Your task to perform on an android device: Open location settings Image 0: 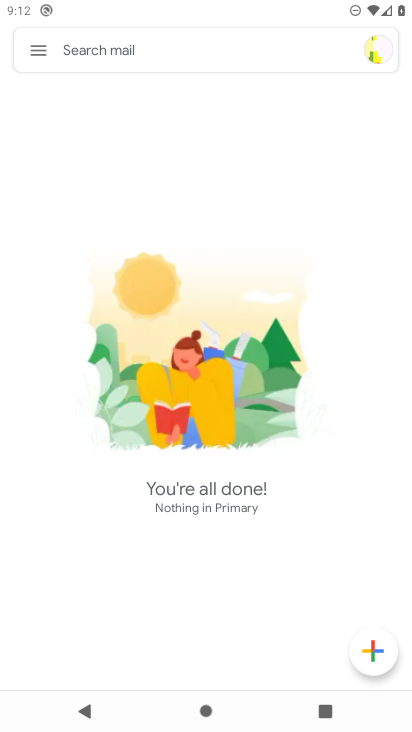
Step 0: press home button
Your task to perform on an android device: Open location settings Image 1: 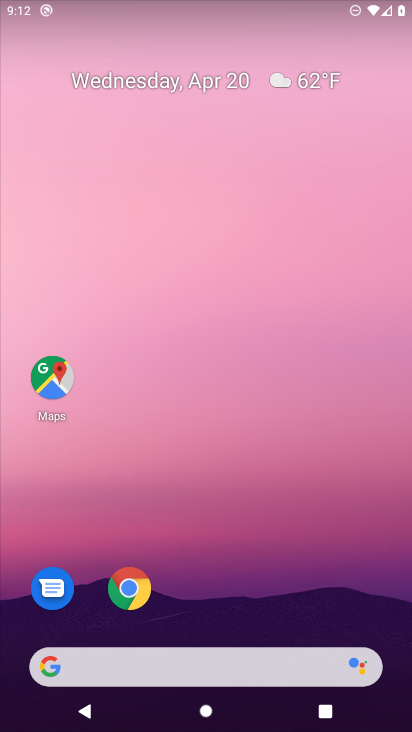
Step 1: drag from (218, 630) to (279, 0)
Your task to perform on an android device: Open location settings Image 2: 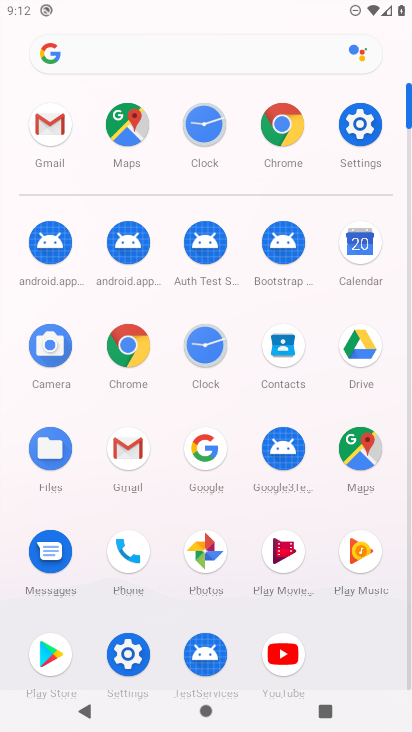
Step 2: click (359, 117)
Your task to perform on an android device: Open location settings Image 3: 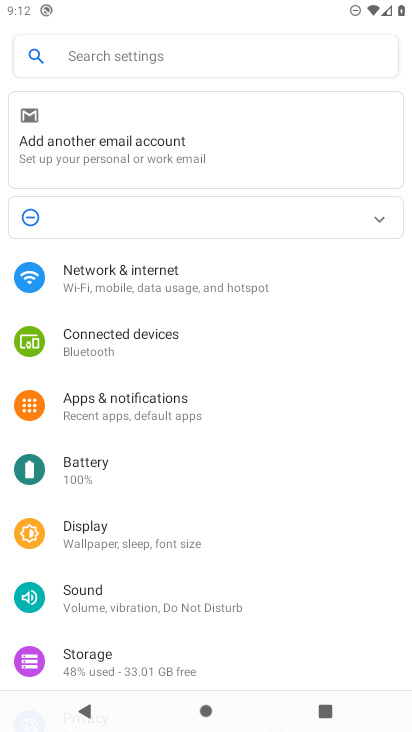
Step 3: drag from (237, 644) to (227, 198)
Your task to perform on an android device: Open location settings Image 4: 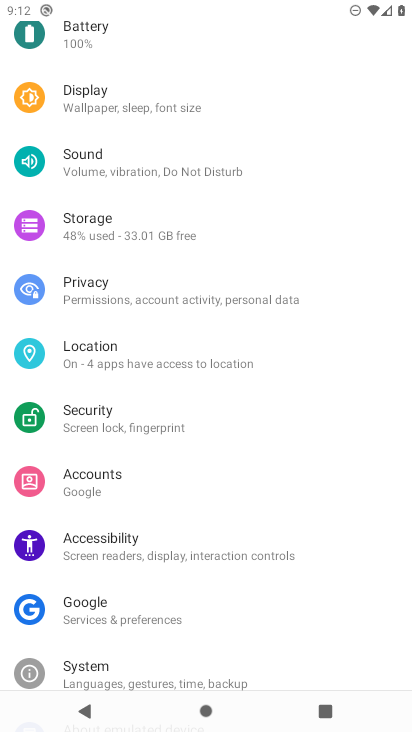
Step 4: click (125, 345)
Your task to perform on an android device: Open location settings Image 5: 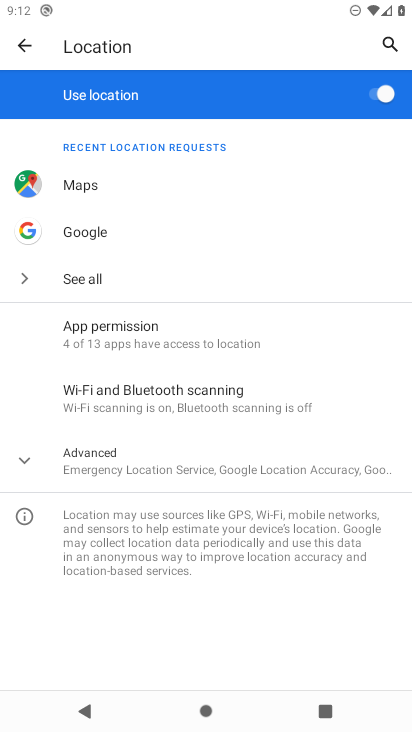
Step 5: click (25, 457)
Your task to perform on an android device: Open location settings Image 6: 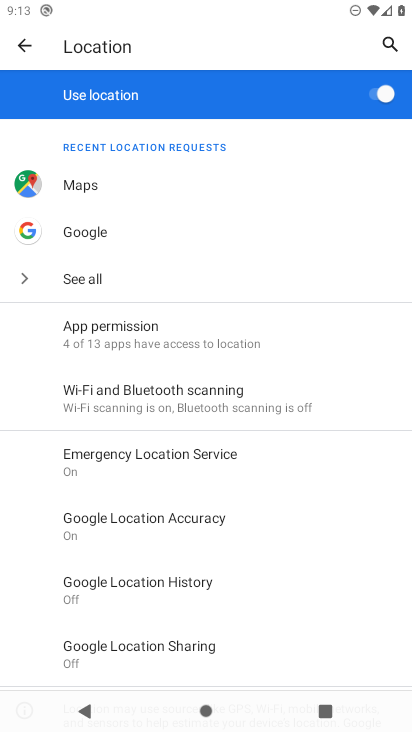
Step 6: task complete